Your task to perform on an android device: toggle notifications settings in the gmail app Image 0: 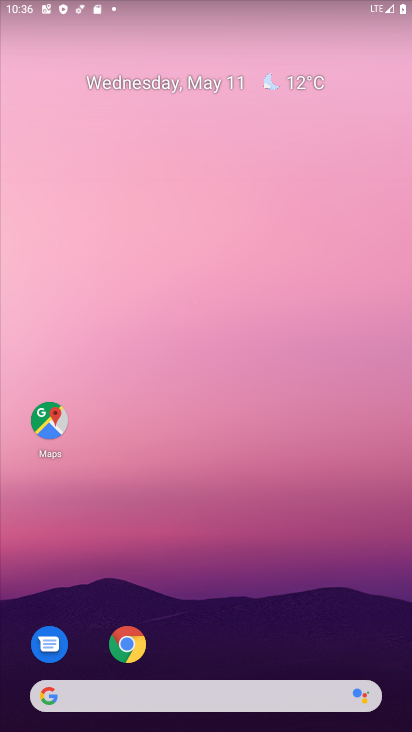
Step 0: drag from (228, 601) to (237, 192)
Your task to perform on an android device: toggle notifications settings in the gmail app Image 1: 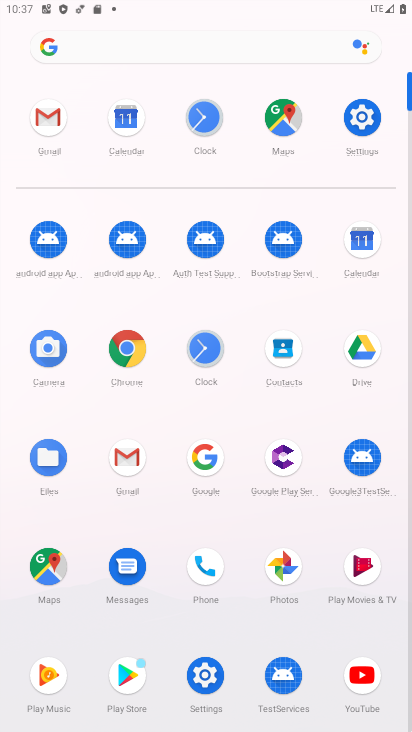
Step 1: click (144, 459)
Your task to perform on an android device: toggle notifications settings in the gmail app Image 2: 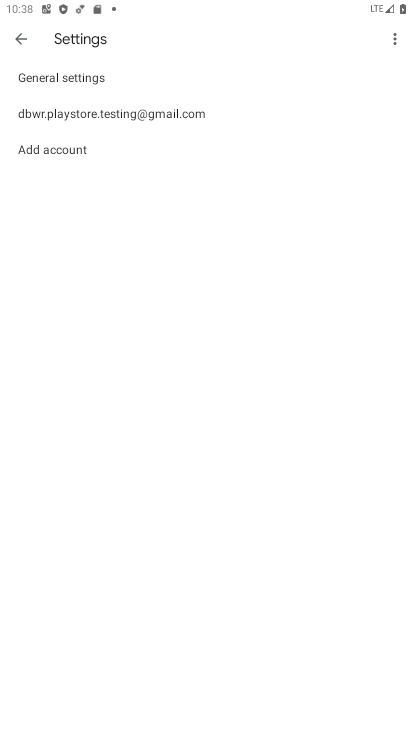
Step 2: press home button
Your task to perform on an android device: toggle notifications settings in the gmail app Image 3: 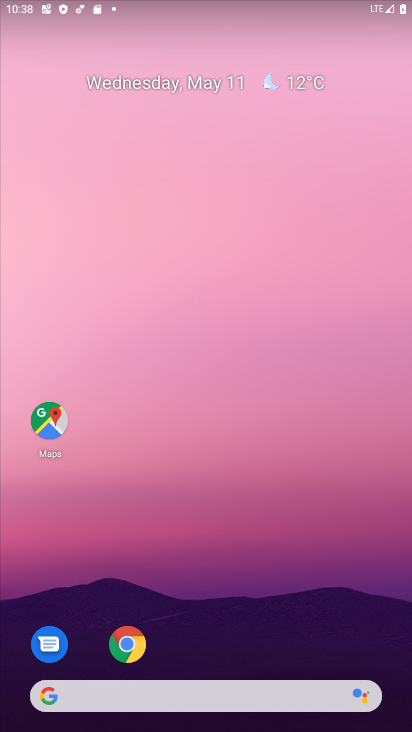
Step 3: drag from (243, 620) to (245, 111)
Your task to perform on an android device: toggle notifications settings in the gmail app Image 4: 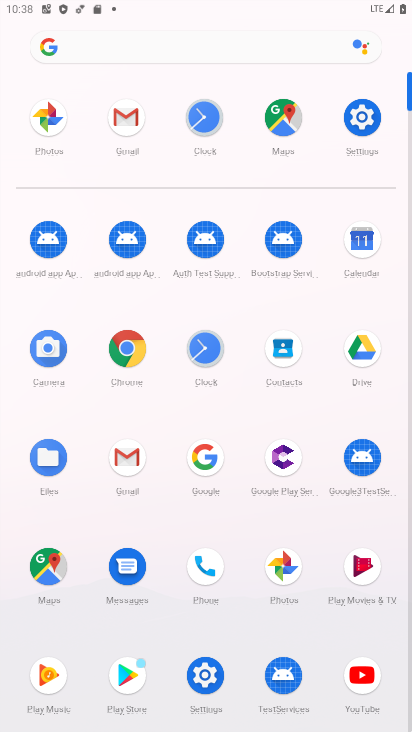
Step 4: click (122, 145)
Your task to perform on an android device: toggle notifications settings in the gmail app Image 5: 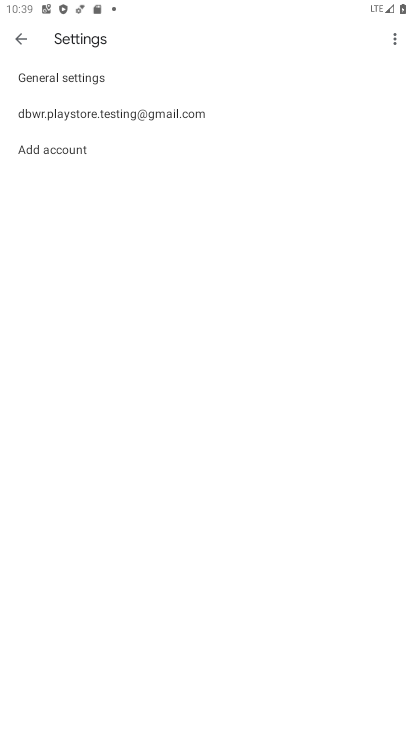
Step 5: click (131, 73)
Your task to perform on an android device: toggle notifications settings in the gmail app Image 6: 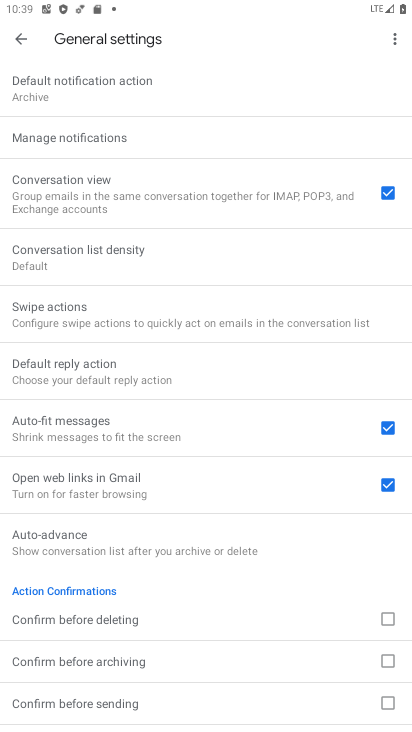
Step 6: click (130, 146)
Your task to perform on an android device: toggle notifications settings in the gmail app Image 7: 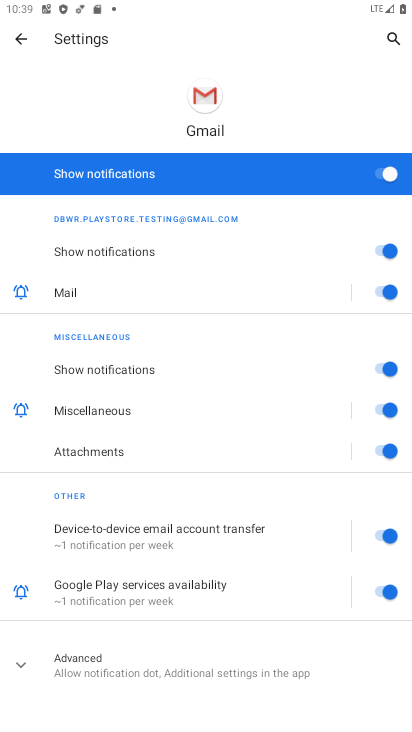
Step 7: click (358, 187)
Your task to perform on an android device: toggle notifications settings in the gmail app Image 8: 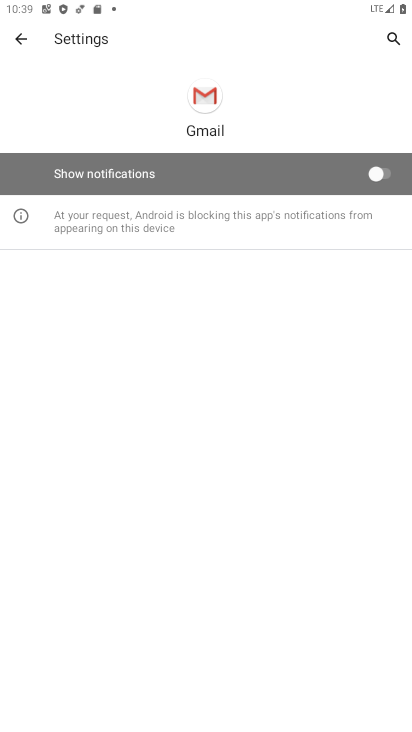
Step 8: task complete